Your task to perform on an android device: turn on data saver in the chrome app Image 0: 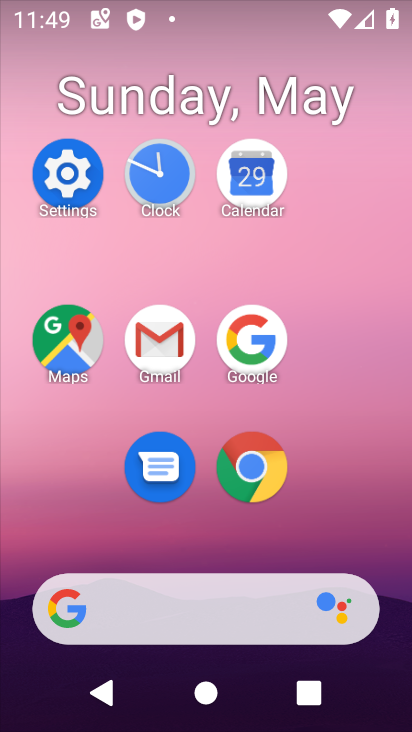
Step 0: click (268, 488)
Your task to perform on an android device: turn on data saver in the chrome app Image 1: 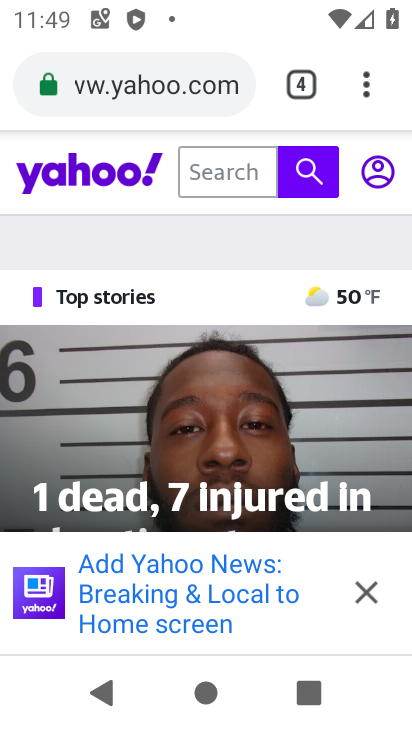
Step 1: click (374, 83)
Your task to perform on an android device: turn on data saver in the chrome app Image 2: 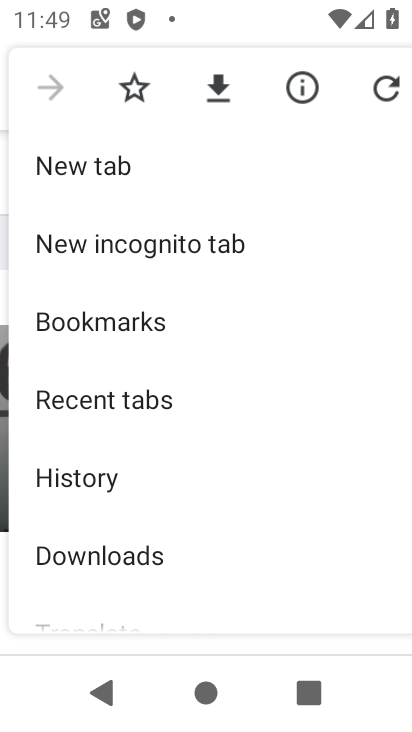
Step 2: drag from (239, 565) to (271, 149)
Your task to perform on an android device: turn on data saver in the chrome app Image 3: 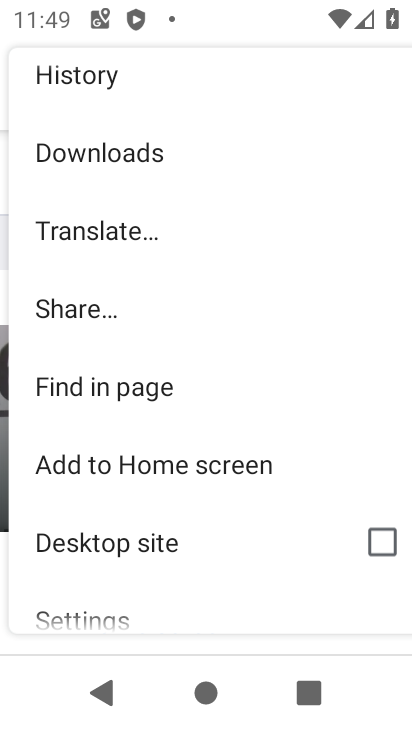
Step 3: drag from (261, 615) to (287, 218)
Your task to perform on an android device: turn on data saver in the chrome app Image 4: 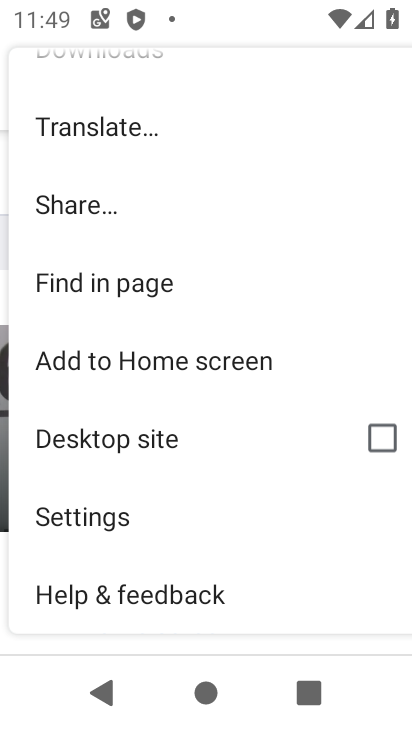
Step 4: click (193, 501)
Your task to perform on an android device: turn on data saver in the chrome app Image 5: 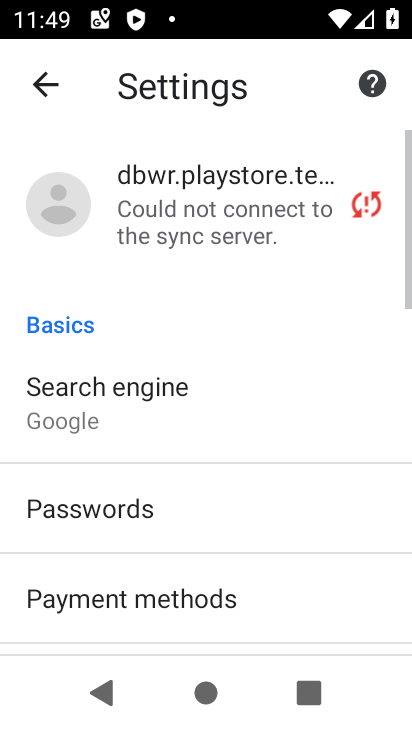
Step 5: drag from (224, 576) to (264, 176)
Your task to perform on an android device: turn on data saver in the chrome app Image 6: 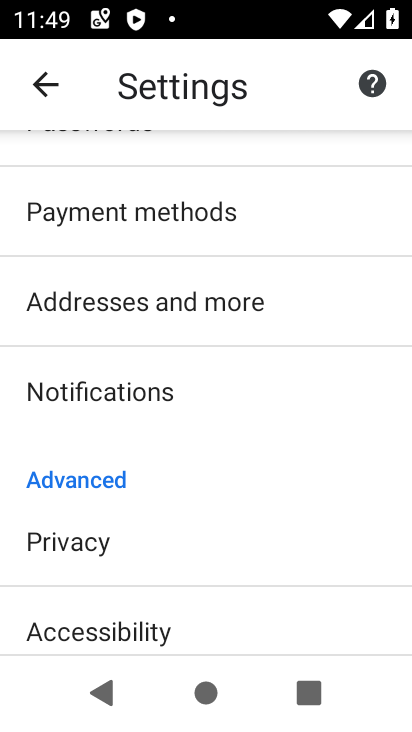
Step 6: drag from (269, 568) to (279, 189)
Your task to perform on an android device: turn on data saver in the chrome app Image 7: 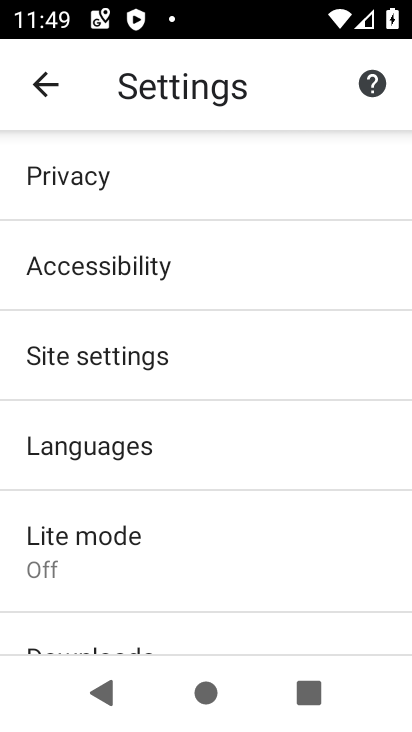
Step 7: click (52, 535)
Your task to perform on an android device: turn on data saver in the chrome app Image 8: 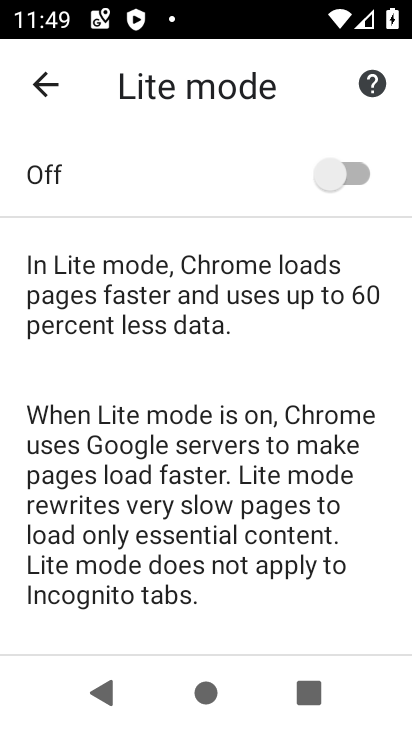
Step 8: click (322, 180)
Your task to perform on an android device: turn on data saver in the chrome app Image 9: 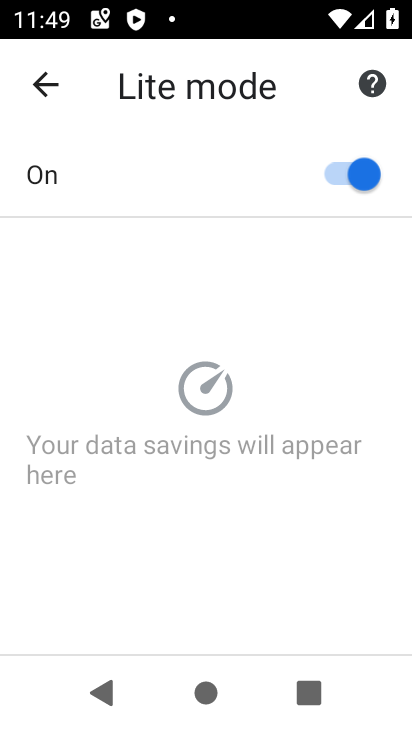
Step 9: task complete